Your task to perform on an android device: How much does the Sony TV cost? Image 0: 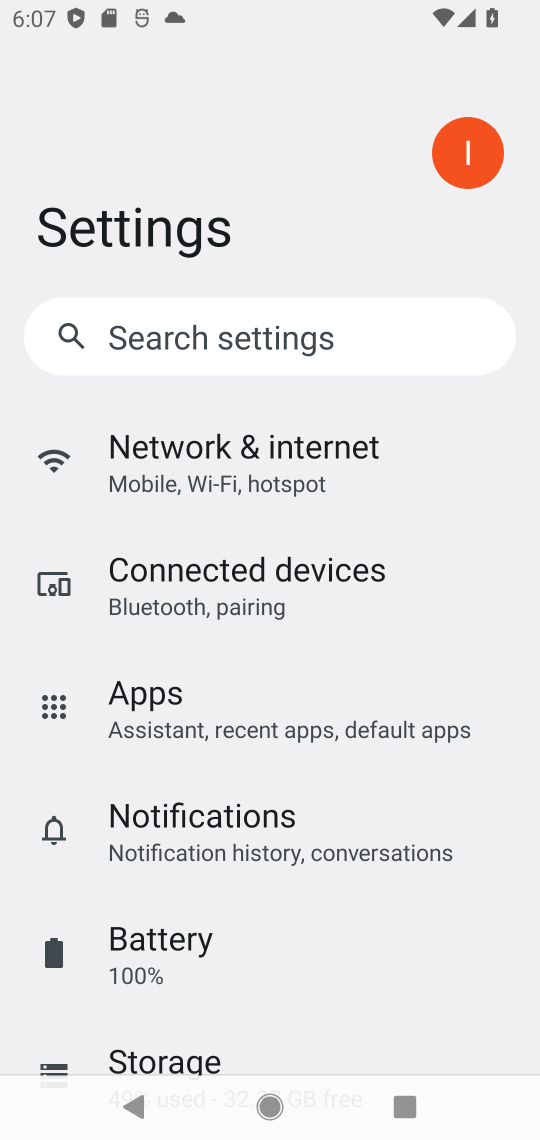
Step 0: click (258, 1103)
Your task to perform on an android device: How much does the Sony TV cost? Image 1: 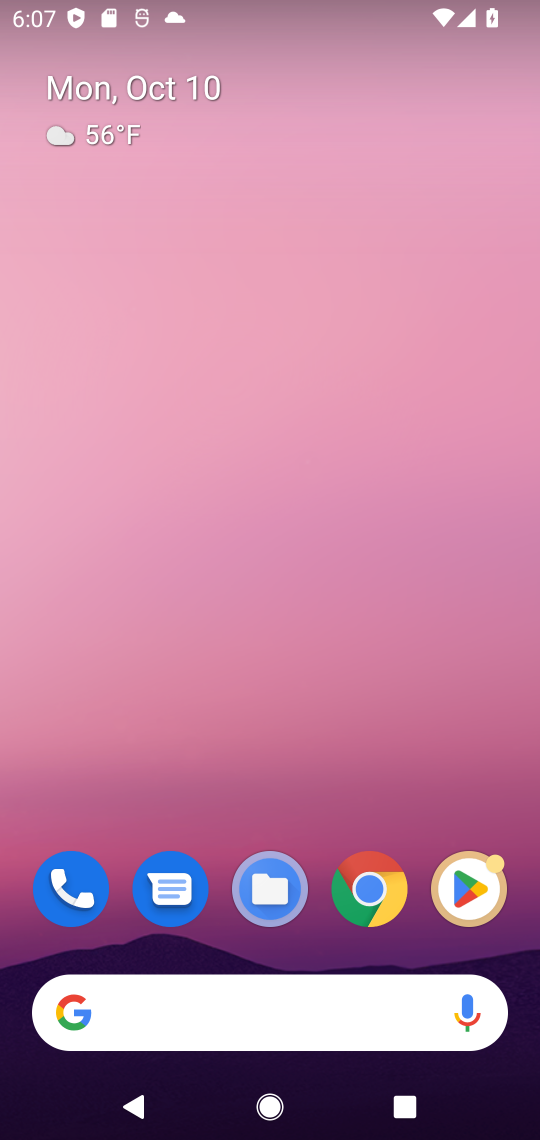
Step 1: click (388, 875)
Your task to perform on an android device: How much does the Sony TV cost? Image 2: 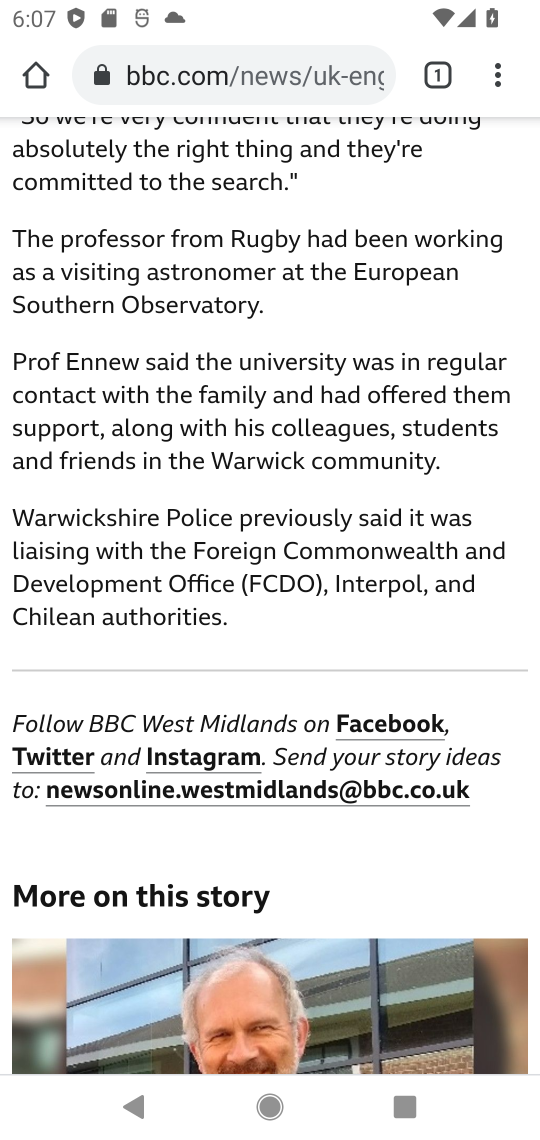
Step 2: click (260, 74)
Your task to perform on an android device: How much does the Sony TV cost? Image 3: 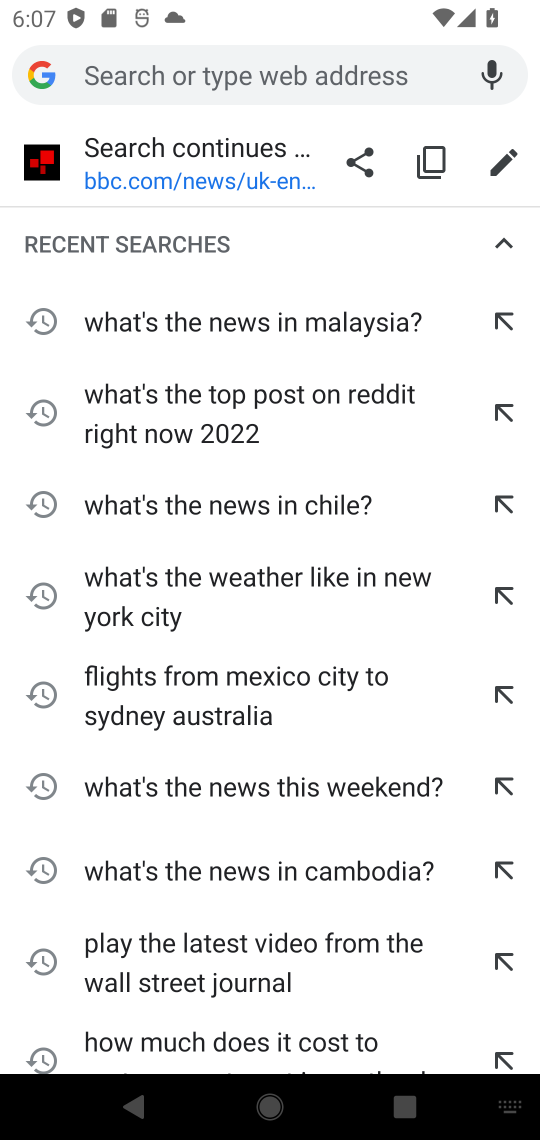
Step 3: type "How much does the Sony TV cost?"
Your task to perform on an android device: How much does the Sony TV cost? Image 4: 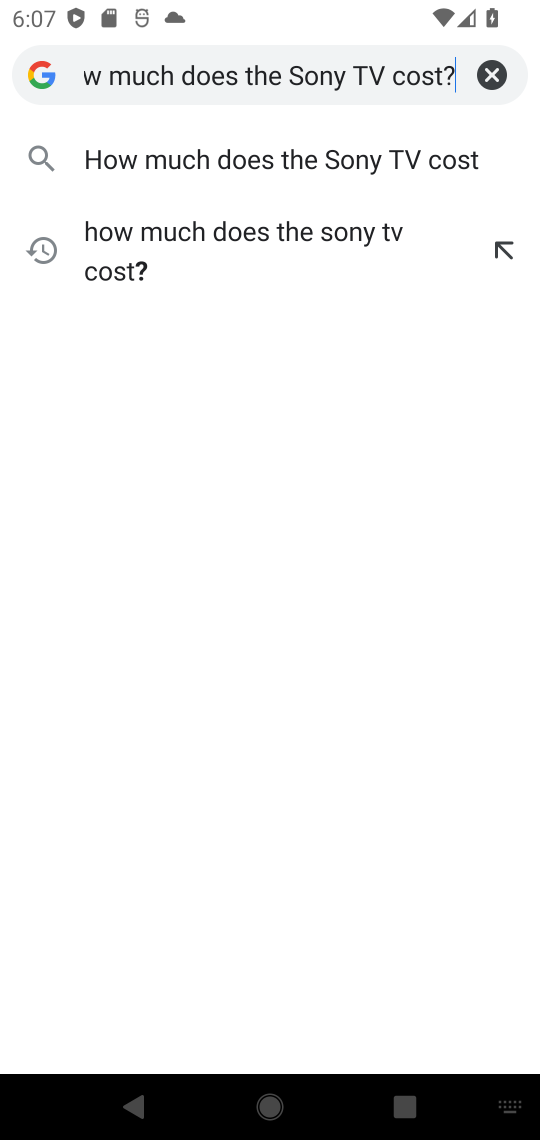
Step 4: type ""
Your task to perform on an android device: How much does the Sony TV cost? Image 5: 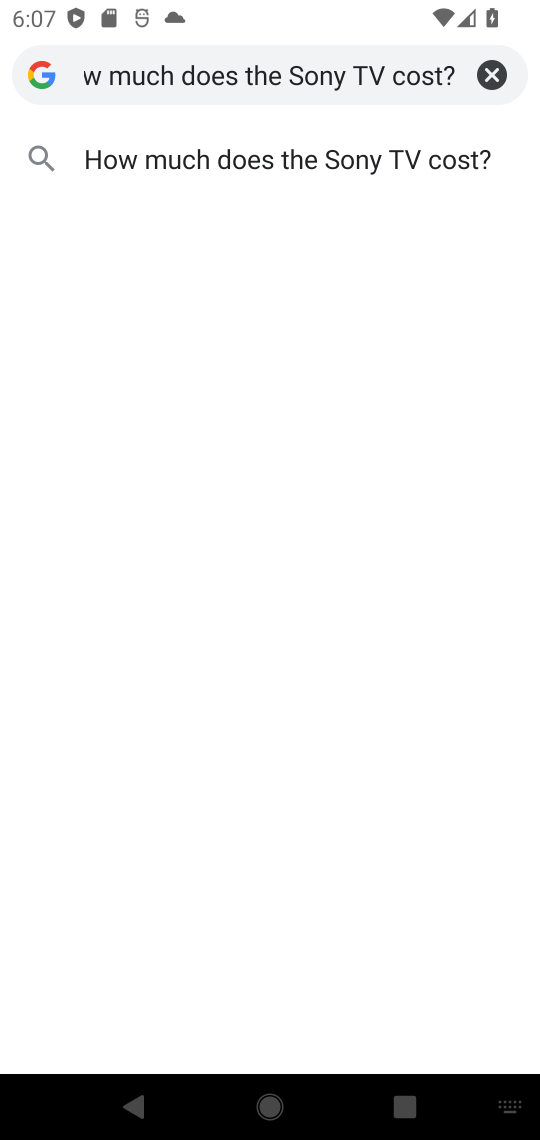
Step 5: click (416, 142)
Your task to perform on an android device: How much does the Sony TV cost? Image 6: 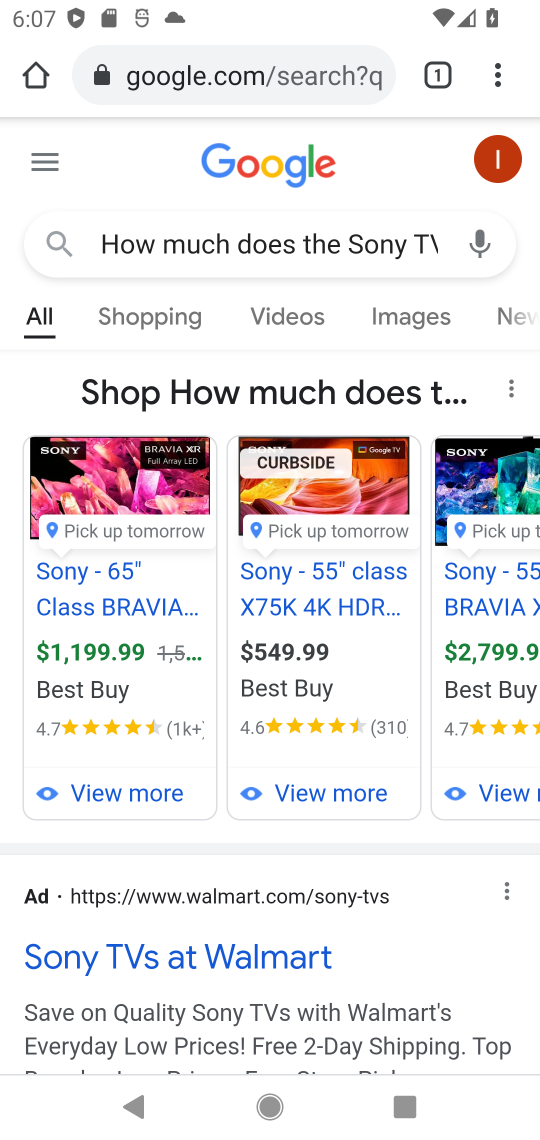
Step 6: drag from (203, 942) to (232, 388)
Your task to perform on an android device: How much does the Sony TV cost? Image 7: 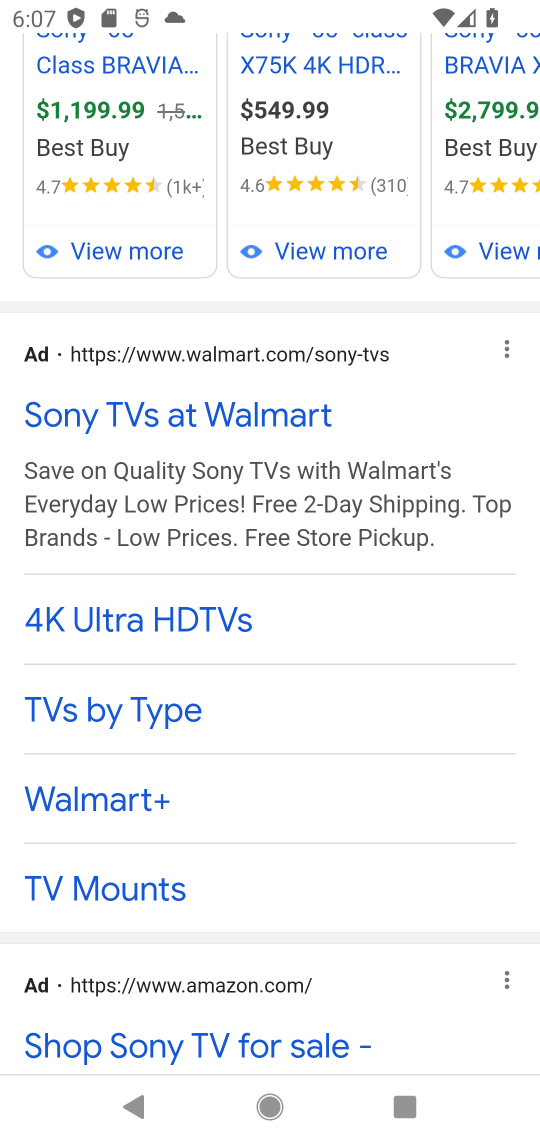
Step 7: drag from (227, 399) to (259, 784)
Your task to perform on an android device: How much does the Sony TV cost? Image 8: 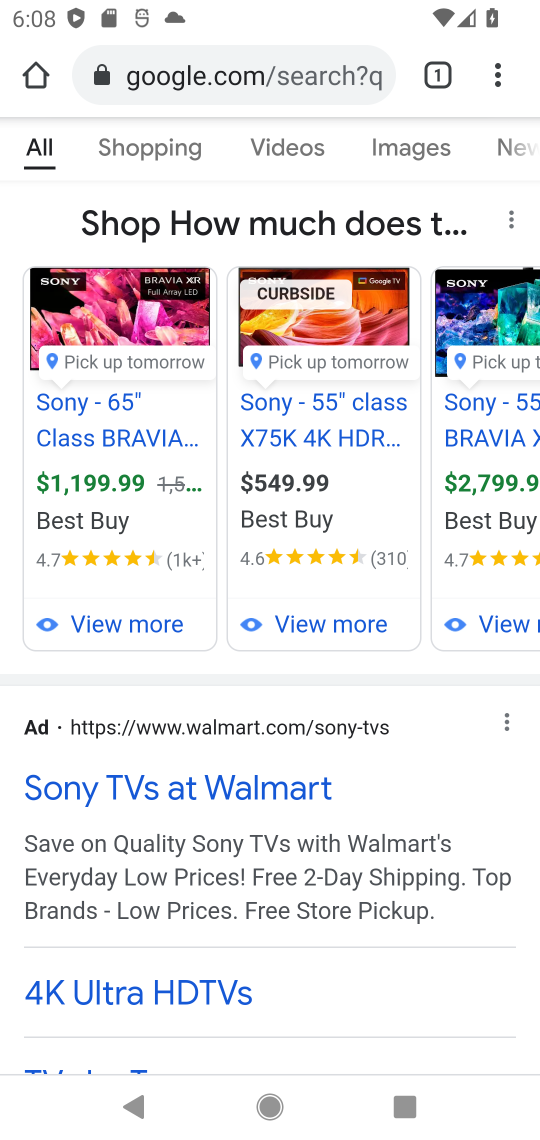
Step 8: drag from (336, 912) to (337, 445)
Your task to perform on an android device: How much does the Sony TV cost? Image 9: 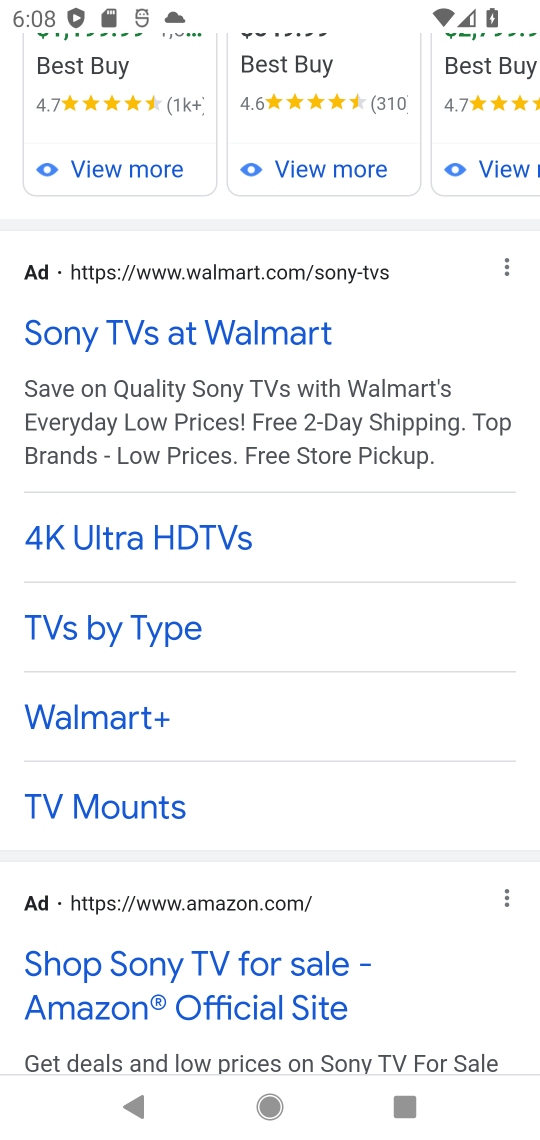
Step 9: drag from (277, 276) to (311, 882)
Your task to perform on an android device: How much does the Sony TV cost? Image 10: 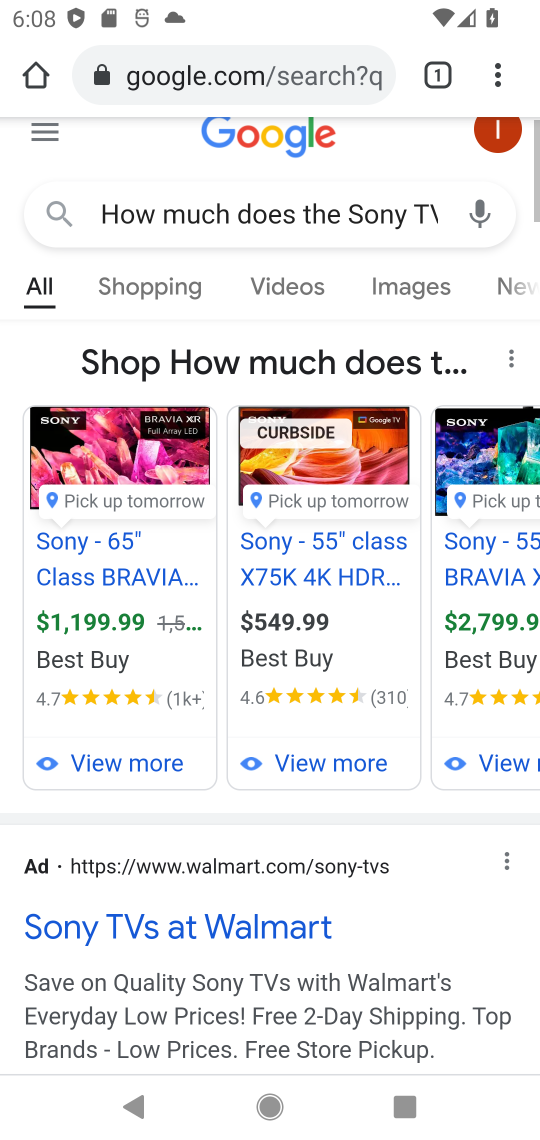
Step 10: drag from (356, 428) to (375, 935)
Your task to perform on an android device: How much does the Sony TV cost? Image 11: 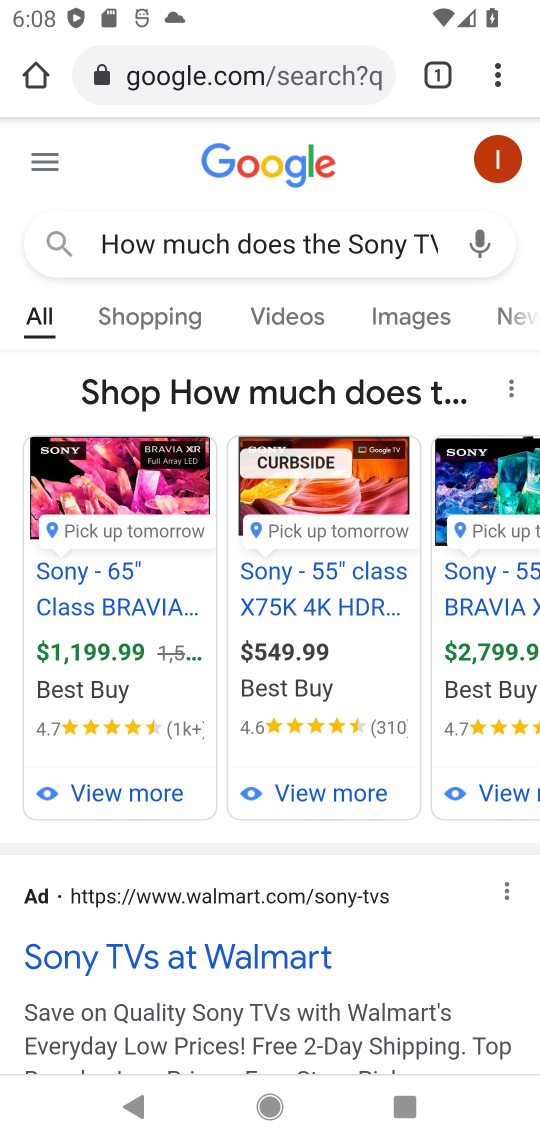
Step 11: click (120, 572)
Your task to perform on an android device: How much does the Sony TV cost? Image 12: 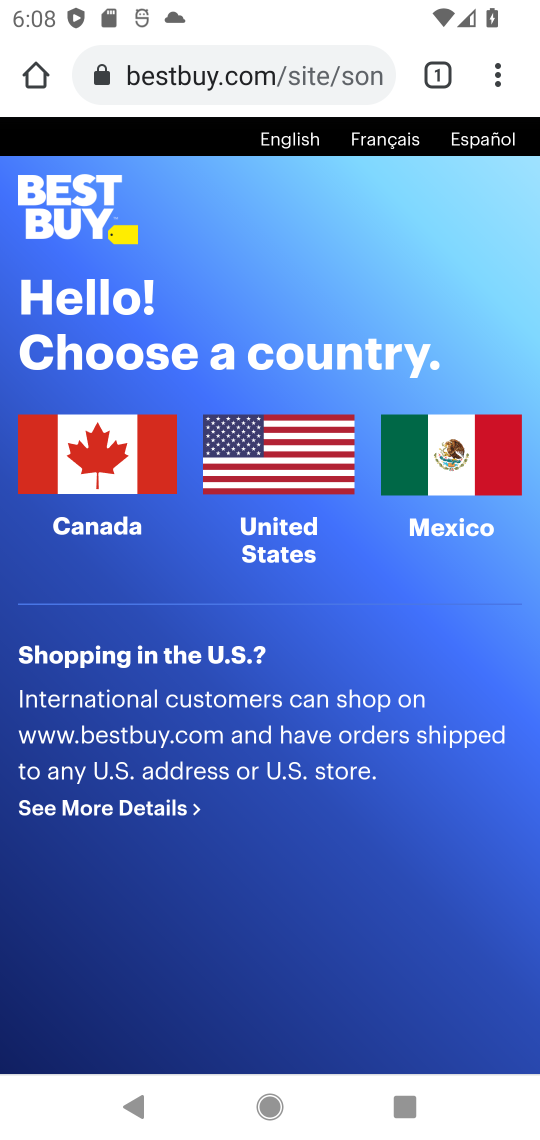
Step 12: task complete